Your task to perform on an android device: Show me popular games on the Play Store Image 0: 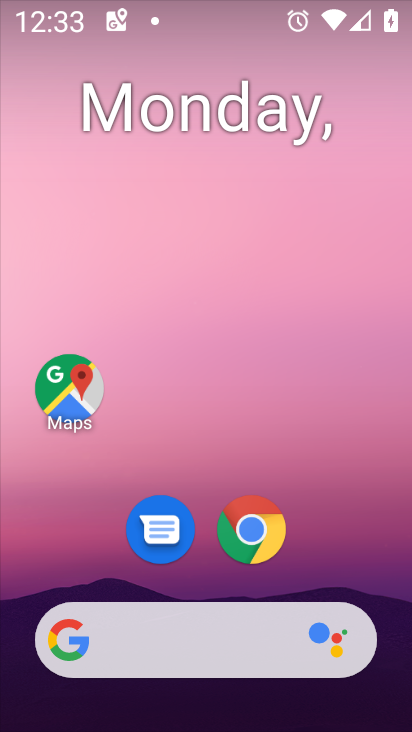
Step 0: drag from (197, 623) to (13, 19)
Your task to perform on an android device: Show me popular games on the Play Store Image 1: 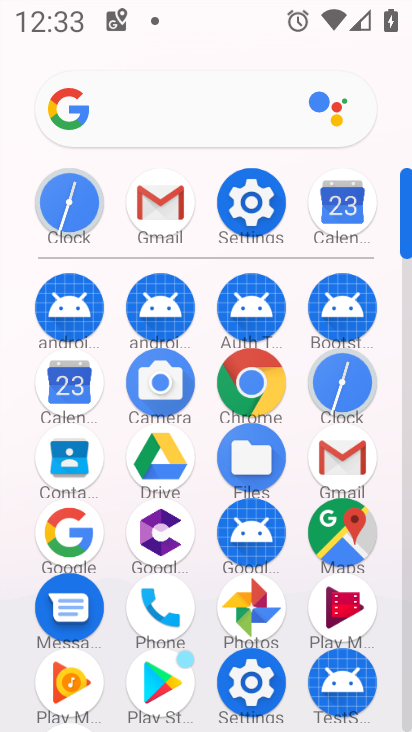
Step 1: click (161, 695)
Your task to perform on an android device: Show me popular games on the Play Store Image 2: 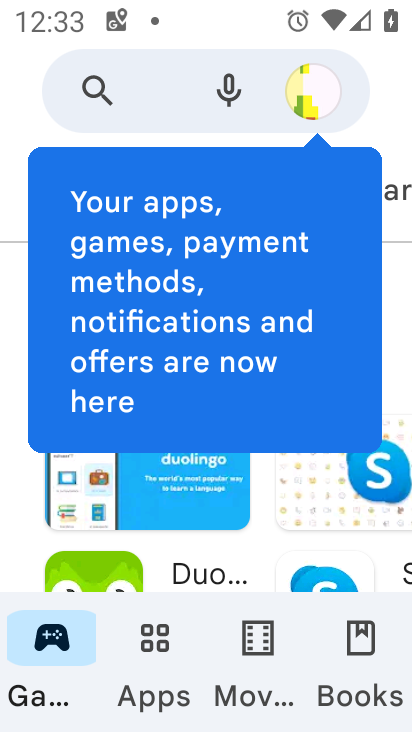
Step 2: drag from (208, 549) to (189, 86)
Your task to perform on an android device: Show me popular games on the Play Store Image 3: 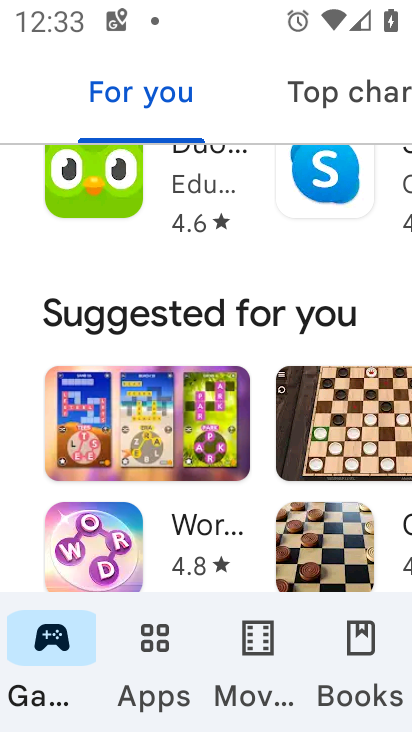
Step 3: drag from (219, 534) to (195, 73)
Your task to perform on an android device: Show me popular games on the Play Store Image 4: 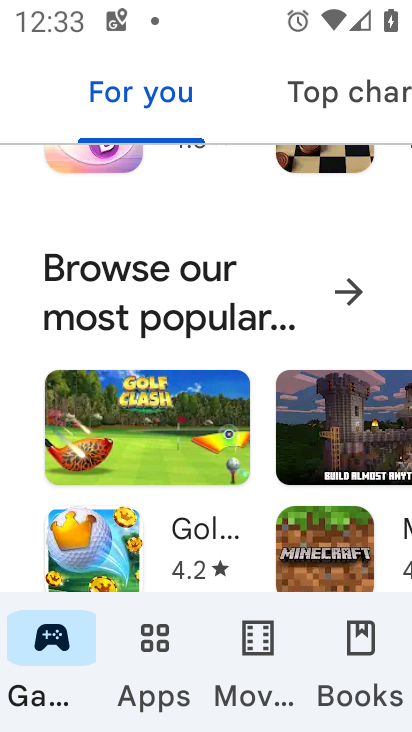
Step 4: click (365, 298)
Your task to perform on an android device: Show me popular games on the Play Store Image 5: 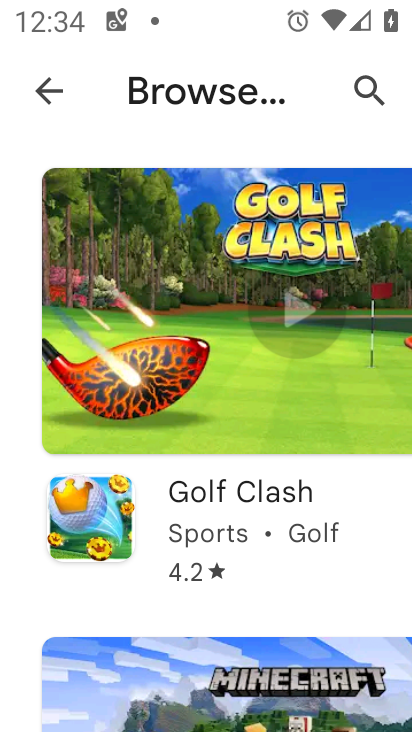
Step 5: task complete